Your task to perform on an android device: Open Chrome and go to the settings page Image 0: 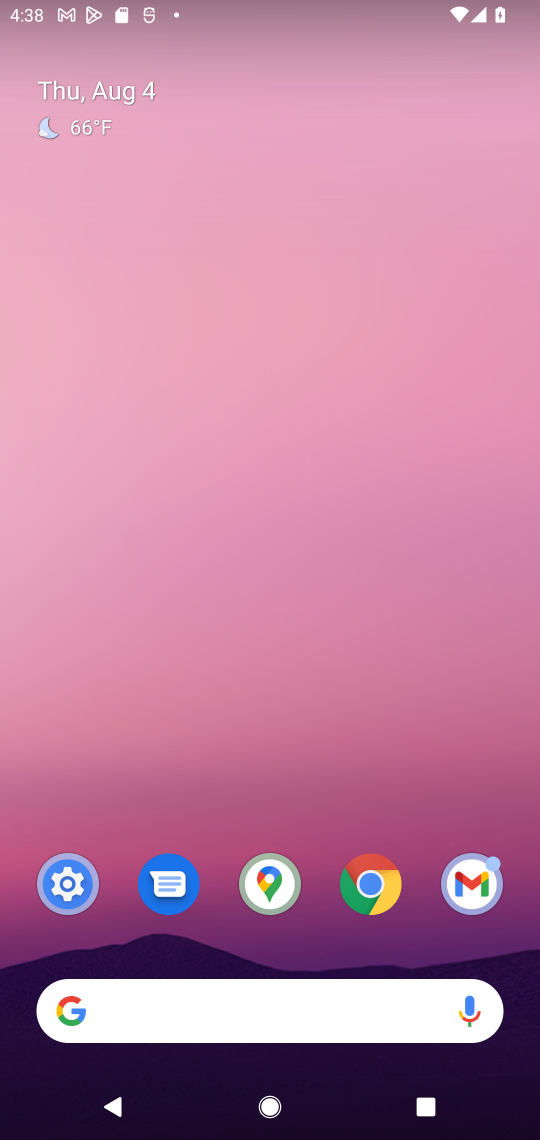
Step 0: click (81, 899)
Your task to perform on an android device: Open Chrome and go to the settings page Image 1: 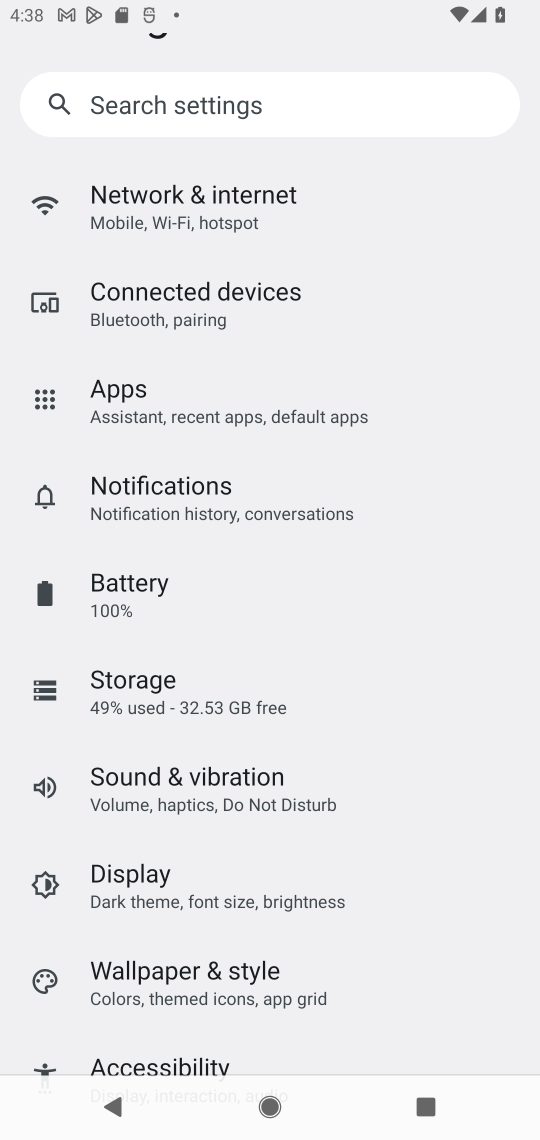
Step 1: press home button
Your task to perform on an android device: Open Chrome and go to the settings page Image 2: 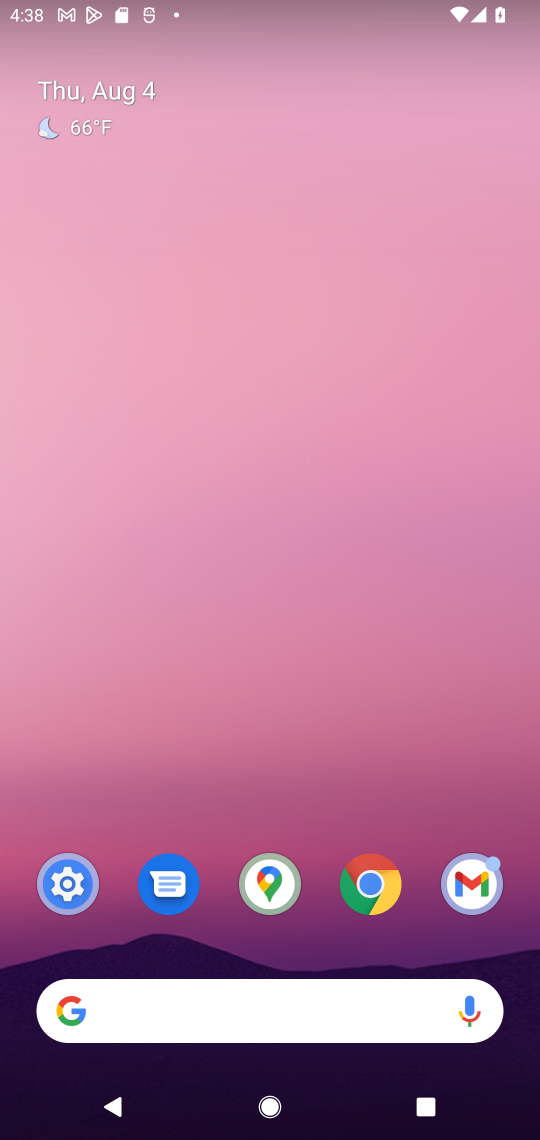
Step 2: click (378, 893)
Your task to perform on an android device: Open Chrome and go to the settings page Image 3: 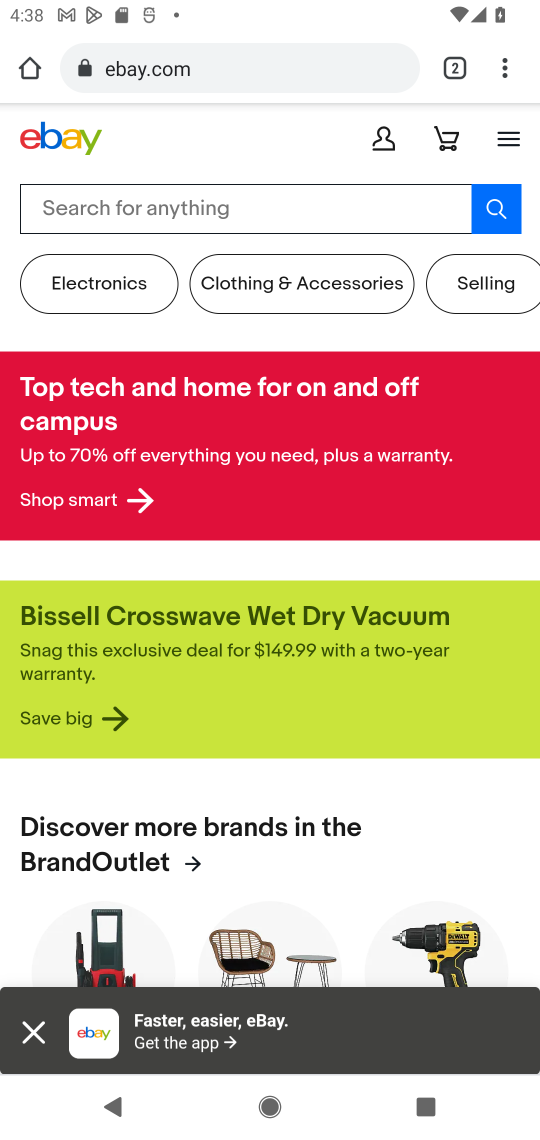
Step 3: click (501, 71)
Your task to perform on an android device: Open Chrome and go to the settings page Image 4: 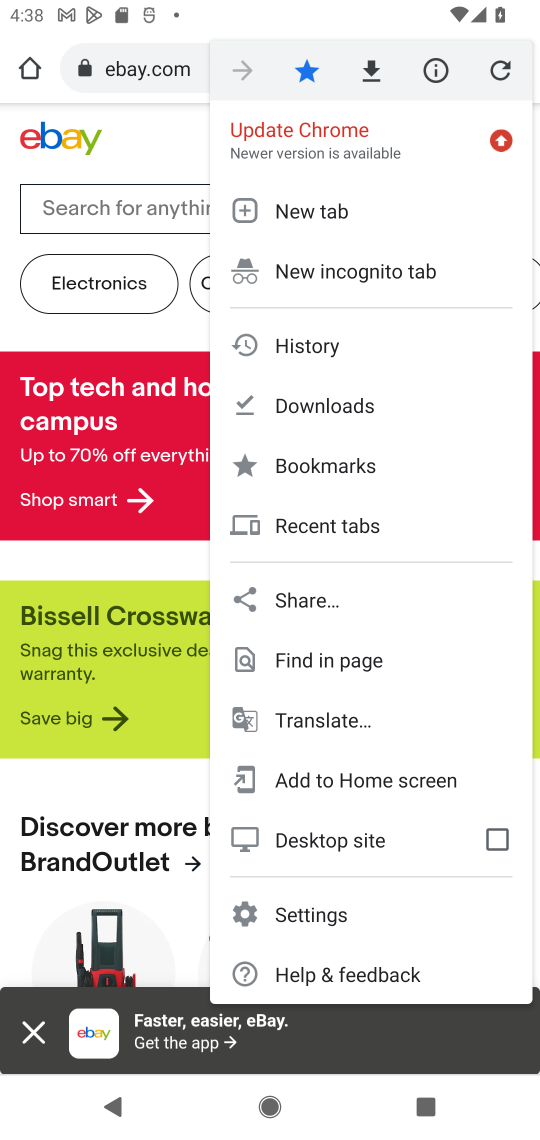
Step 4: click (296, 907)
Your task to perform on an android device: Open Chrome and go to the settings page Image 5: 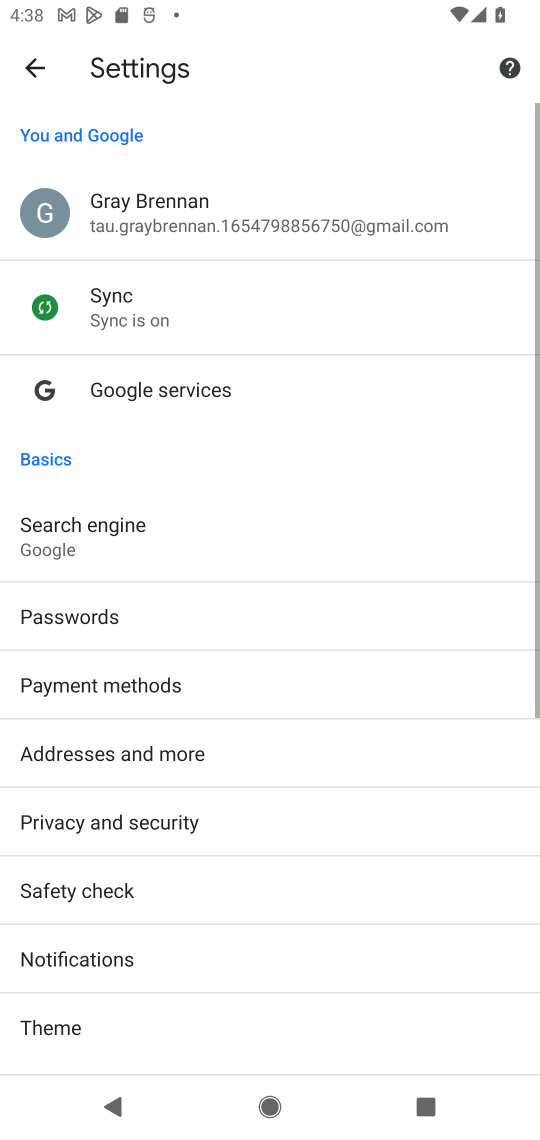
Step 5: task complete